Your task to perform on an android device: Search for pizza restaurants on Maps Image 0: 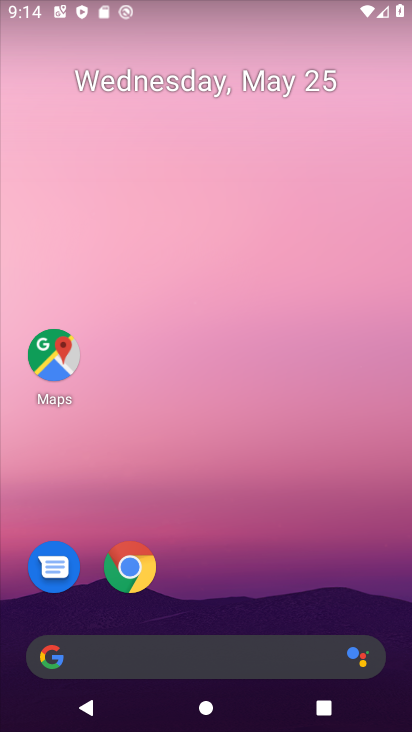
Step 0: click (66, 372)
Your task to perform on an android device: Search for pizza restaurants on Maps Image 1: 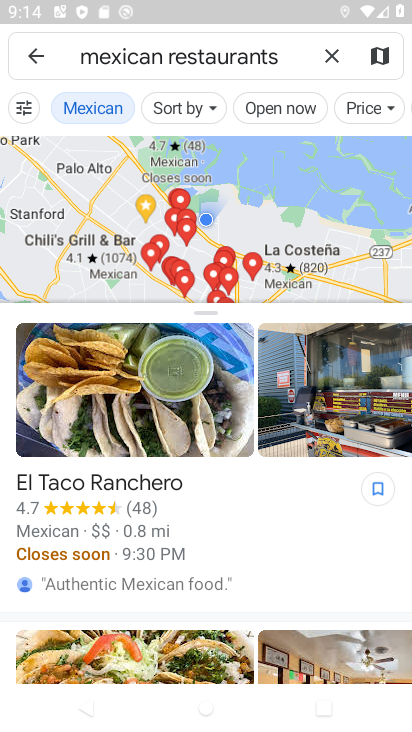
Step 1: click (344, 59)
Your task to perform on an android device: Search for pizza restaurants on Maps Image 2: 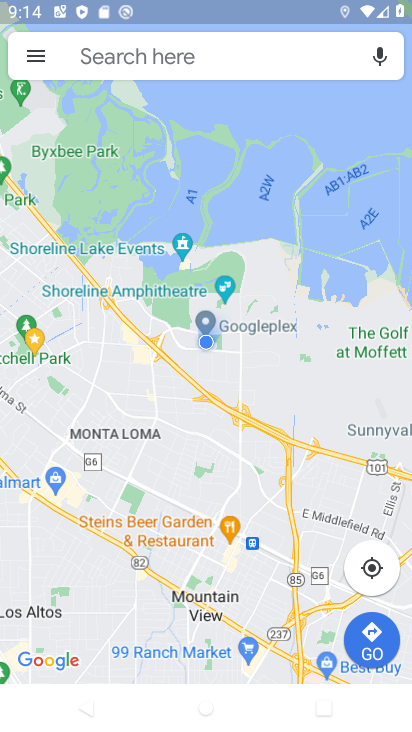
Step 2: click (209, 64)
Your task to perform on an android device: Search for pizza restaurants on Maps Image 3: 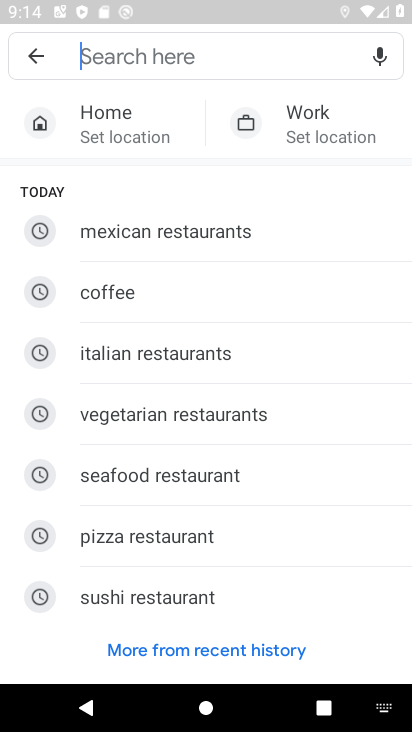
Step 3: click (140, 552)
Your task to perform on an android device: Search for pizza restaurants on Maps Image 4: 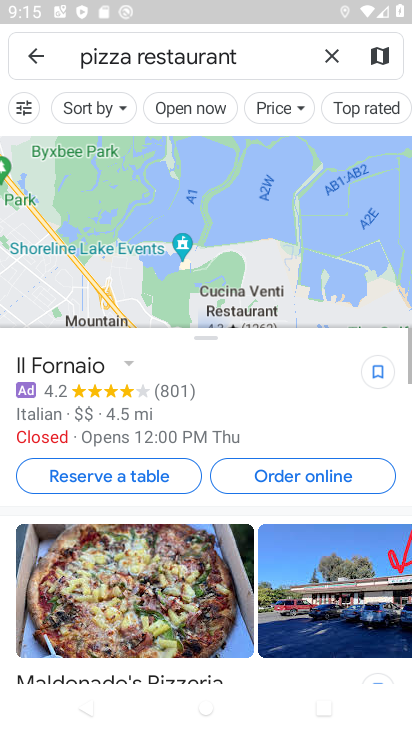
Step 4: task complete